Your task to perform on an android device: change notifications settings Image 0: 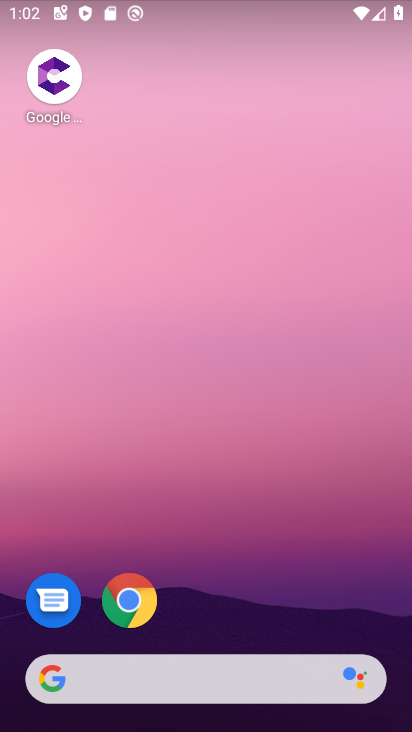
Step 0: drag from (291, 579) to (233, 122)
Your task to perform on an android device: change notifications settings Image 1: 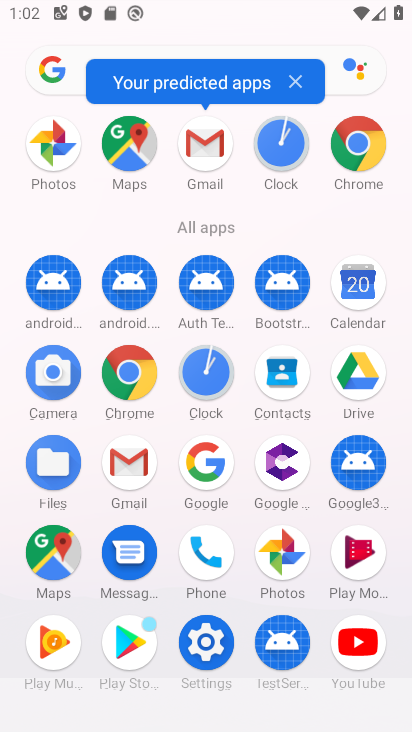
Step 1: click (204, 628)
Your task to perform on an android device: change notifications settings Image 2: 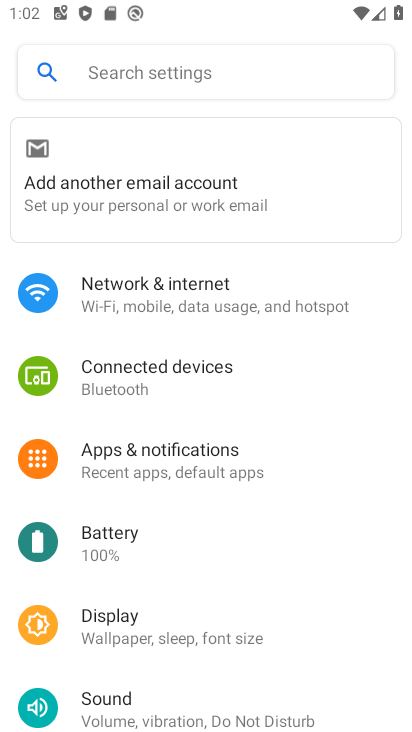
Step 2: click (157, 464)
Your task to perform on an android device: change notifications settings Image 3: 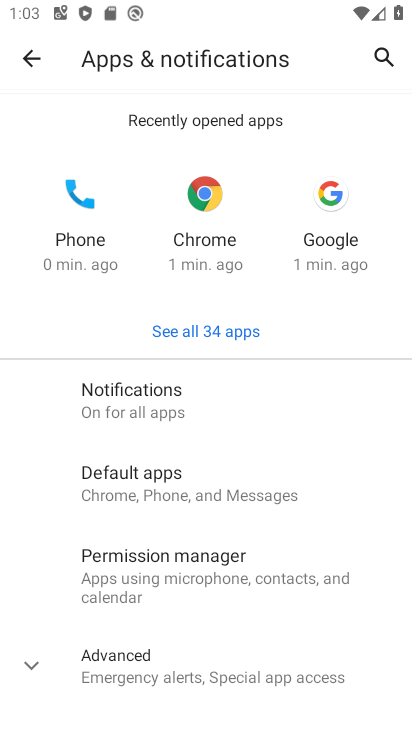
Step 3: click (217, 401)
Your task to perform on an android device: change notifications settings Image 4: 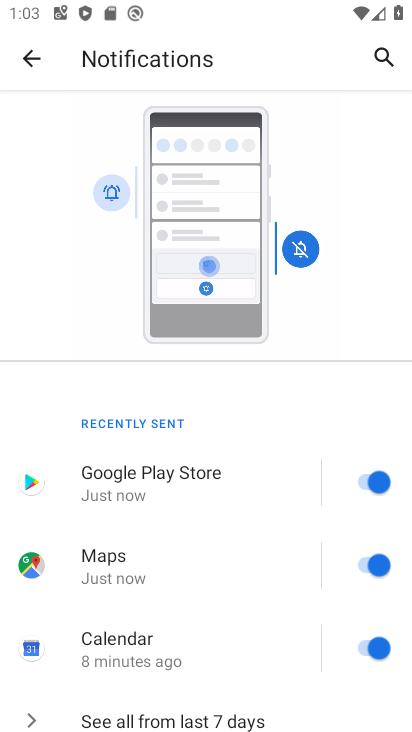
Step 4: click (374, 481)
Your task to perform on an android device: change notifications settings Image 5: 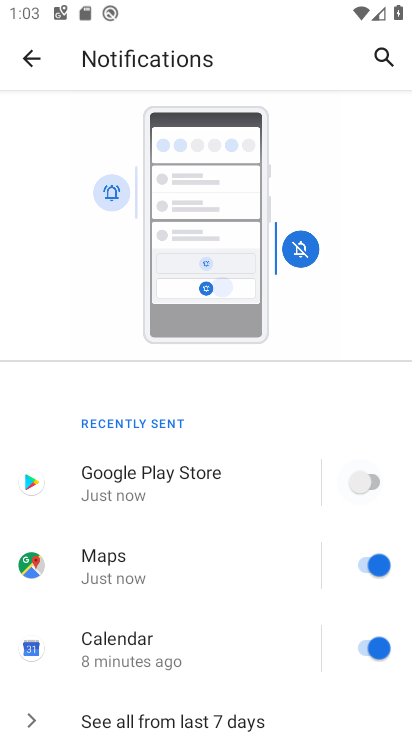
Step 5: click (377, 564)
Your task to perform on an android device: change notifications settings Image 6: 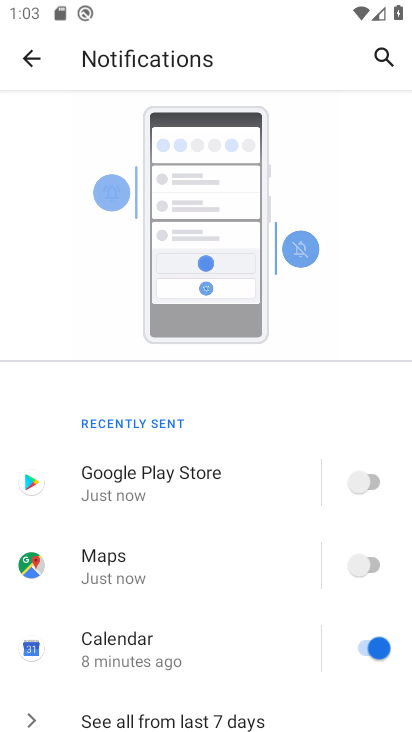
Step 6: click (381, 645)
Your task to perform on an android device: change notifications settings Image 7: 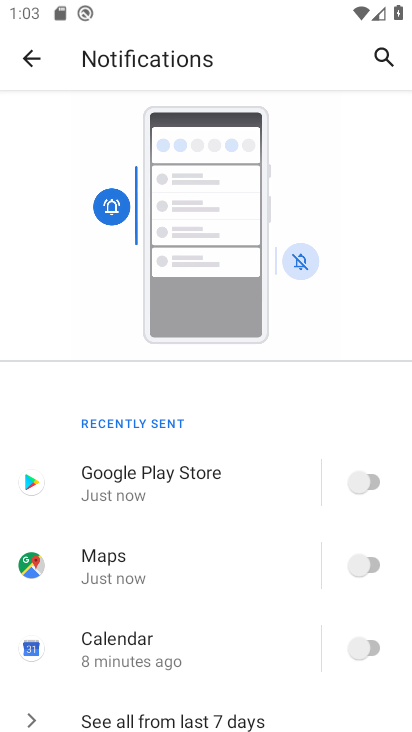
Step 7: task complete